Your task to perform on an android device: Show me the alarms in the clock app Image 0: 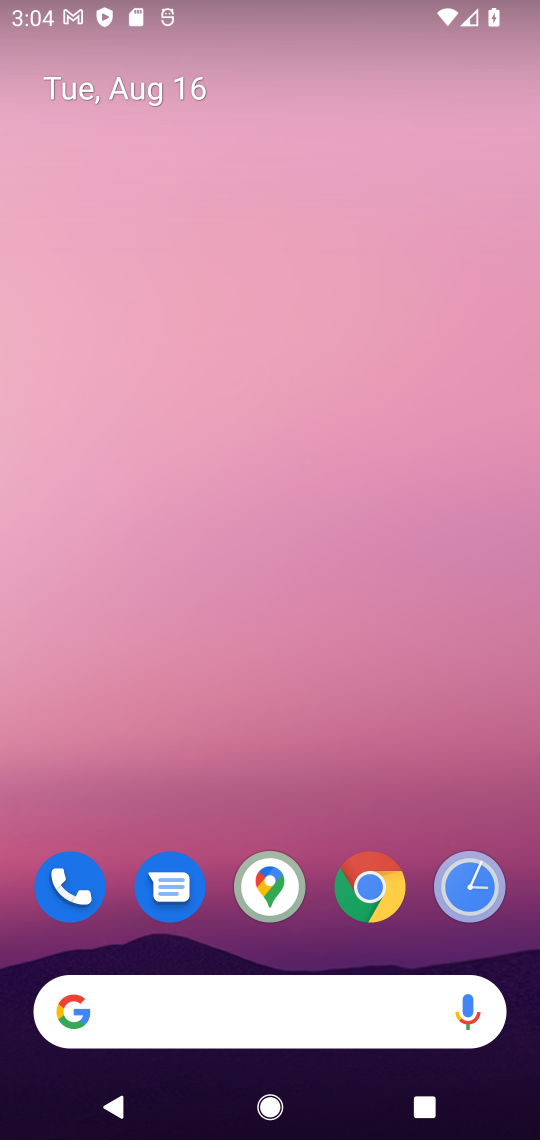
Step 0: drag from (242, 758) to (228, 34)
Your task to perform on an android device: Show me the alarms in the clock app Image 1: 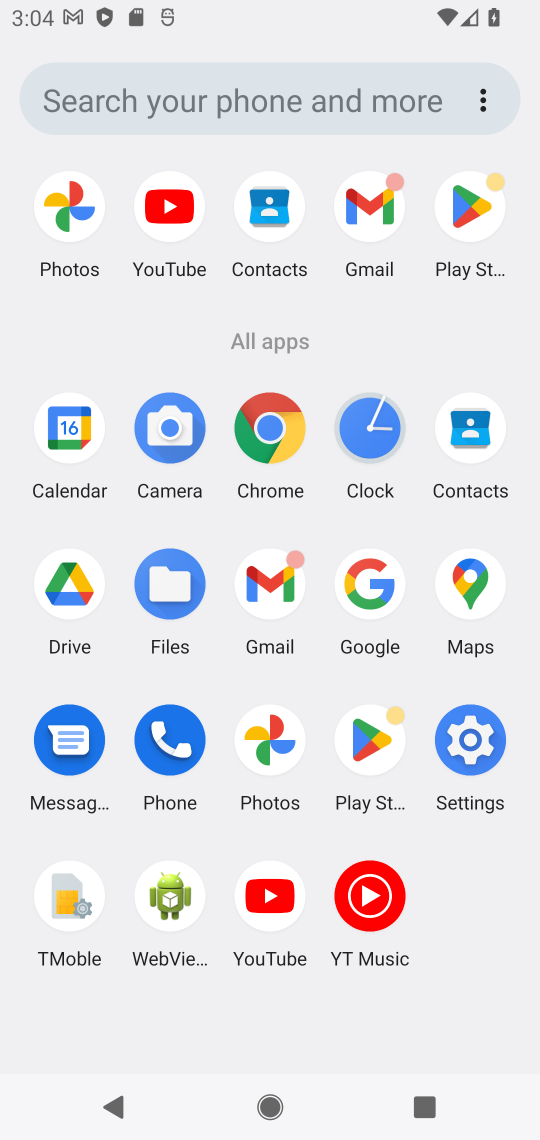
Step 1: click (364, 429)
Your task to perform on an android device: Show me the alarms in the clock app Image 2: 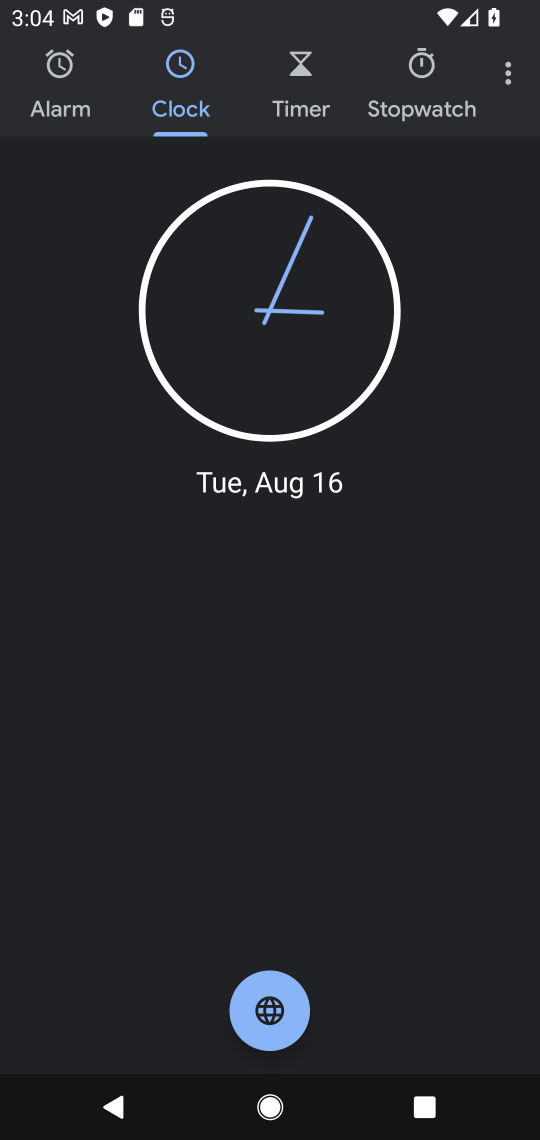
Step 2: click (48, 65)
Your task to perform on an android device: Show me the alarms in the clock app Image 3: 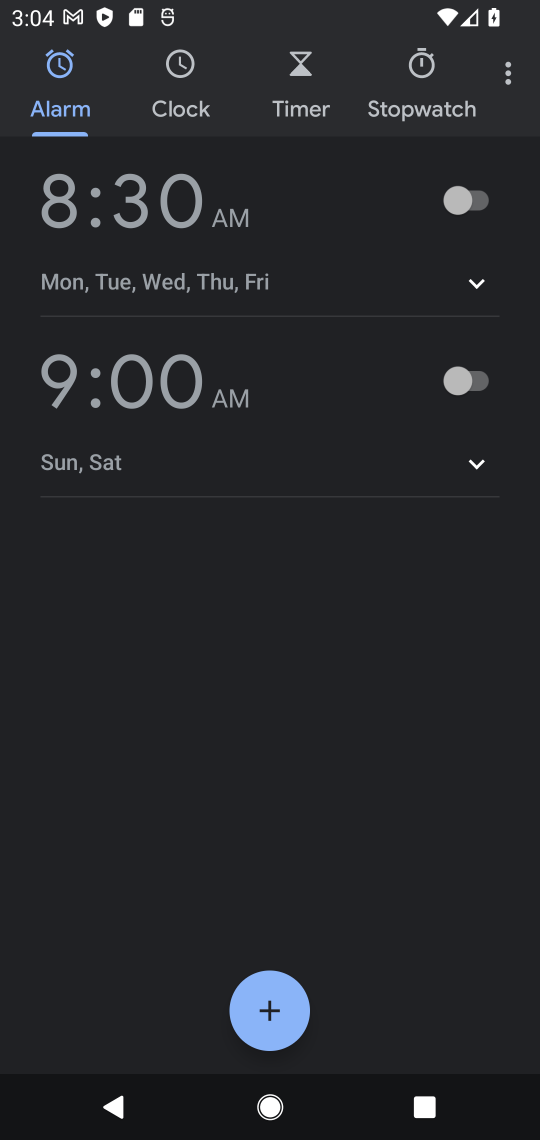
Step 3: task complete